Your task to perform on an android device: install app "DuckDuckGo Privacy Browser" Image 0: 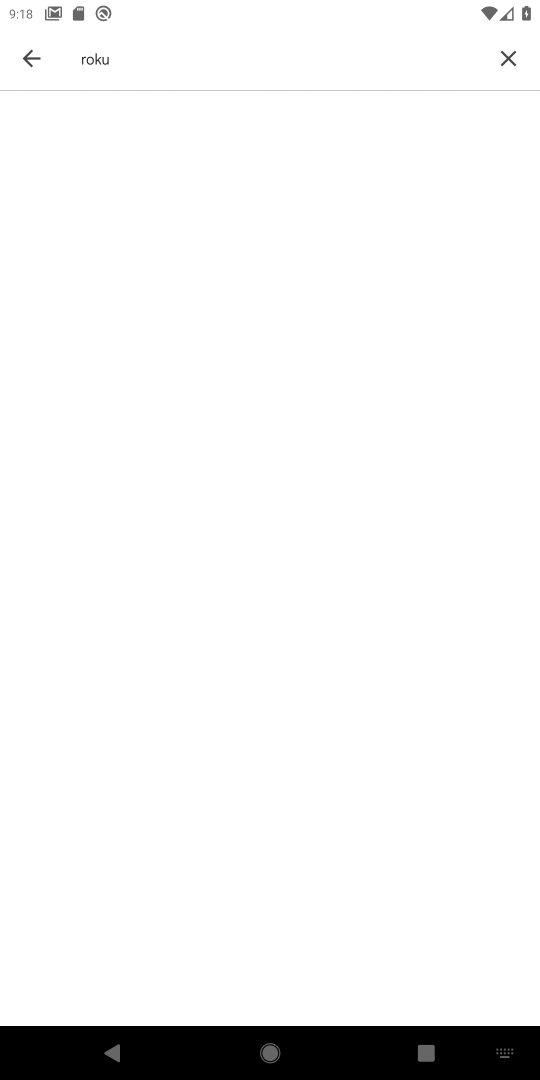
Step 0: press home button
Your task to perform on an android device: install app "DuckDuckGo Privacy Browser" Image 1: 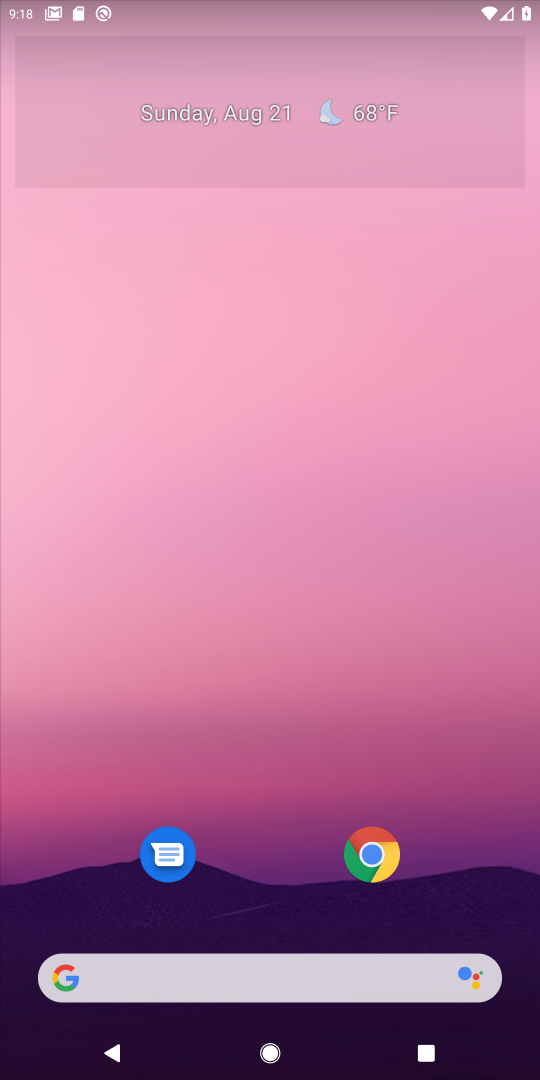
Step 1: drag from (232, 948) to (390, 3)
Your task to perform on an android device: install app "DuckDuckGo Privacy Browser" Image 2: 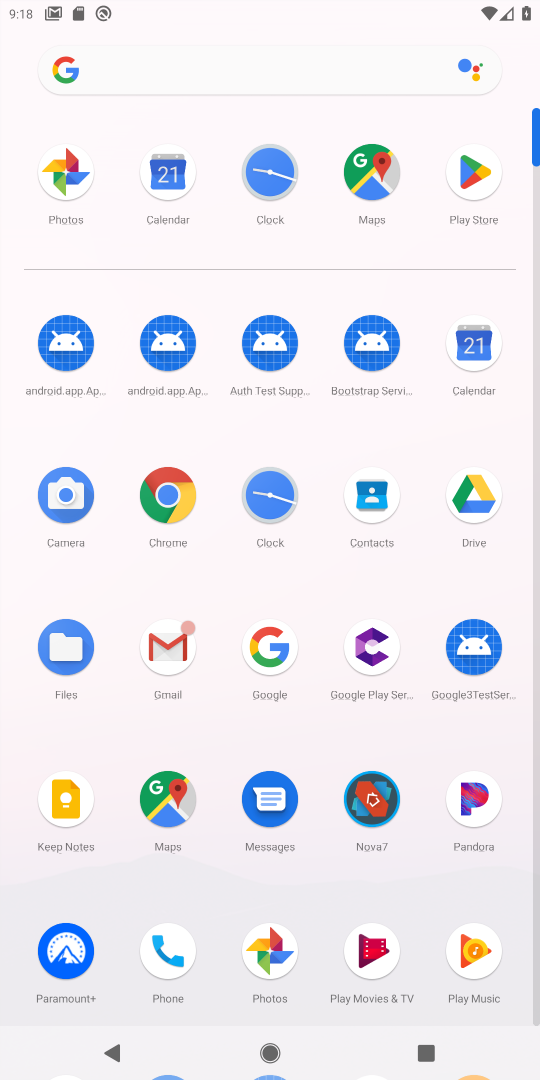
Step 2: click (506, 309)
Your task to perform on an android device: install app "DuckDuckGo Privacy Browser" Image 3: 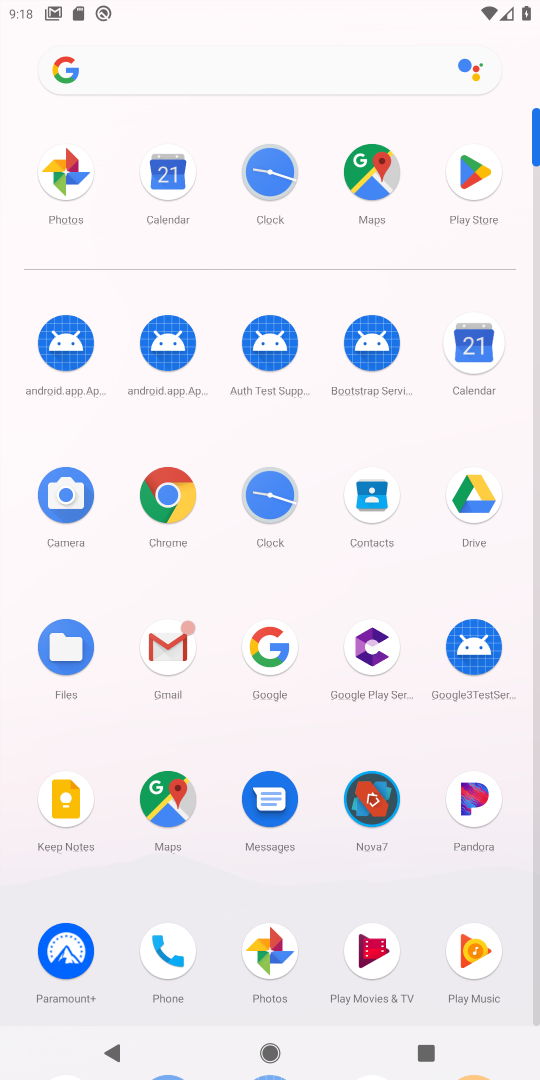
Step 3: click (473, 215)
Your task to perform on an android device: install app "DuckDuckGo Privacy Browser" Image 4: 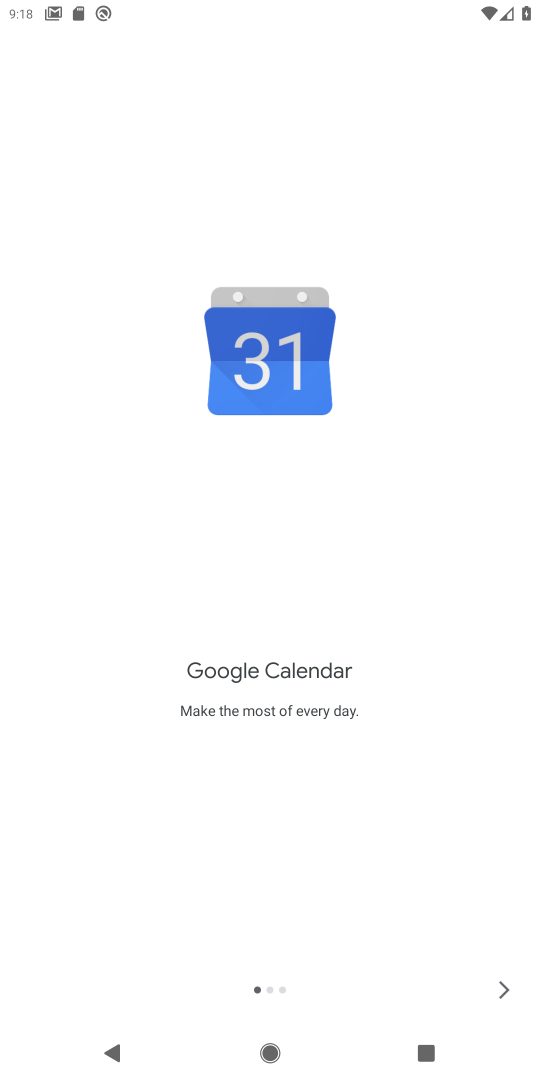
Step 4: press home button
Your task to perform on an android device: install app "DuckDuckGo Privacy Browser" Image 5: 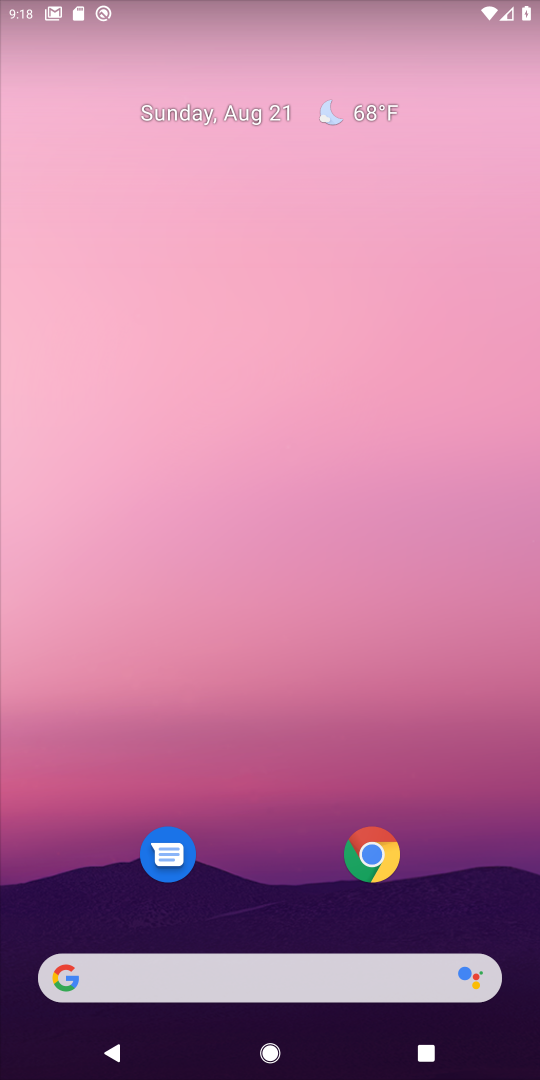
Step 5: drag from (333, 924) to (245, 201)
Your task to perform on an android device: install app "DuckDuckGo Privacy Browser" Image 6: 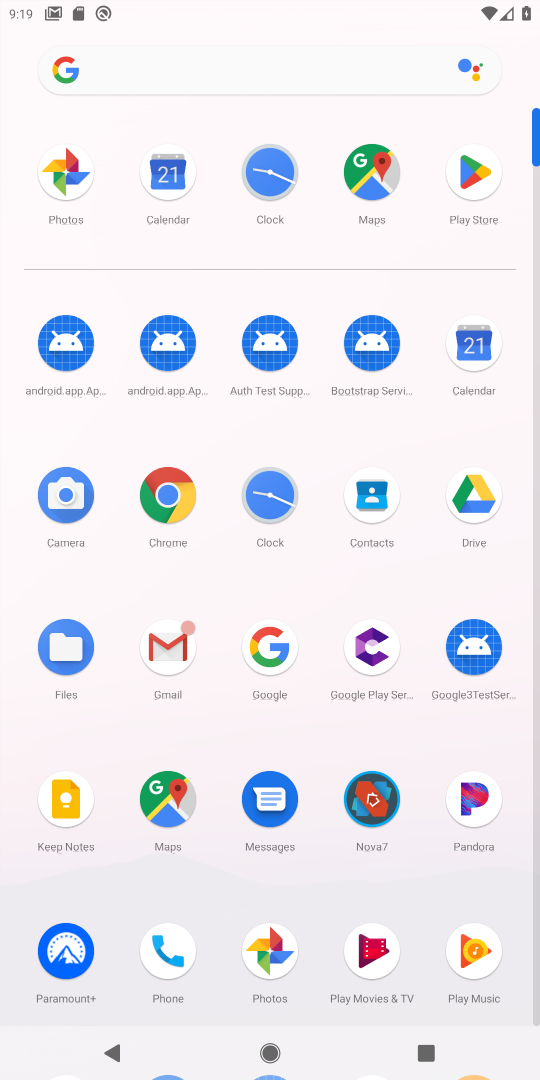
Step 6: click (490, 170)
Your task to perform on an android device: install app "DuckDuckGo Privacy Browser" Image 7: 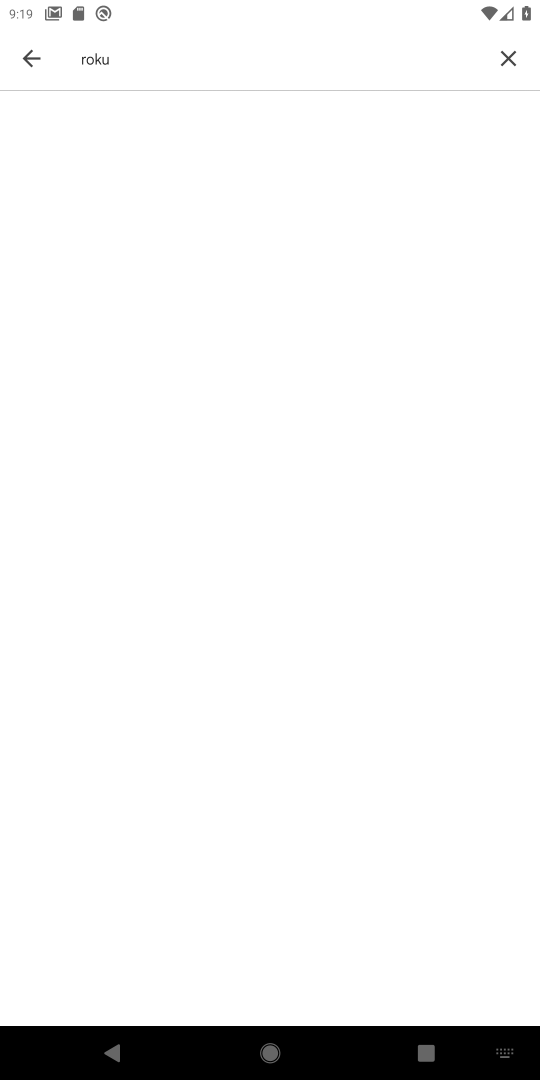
Step 7: click (498, 70)
Your task to perform on an android device: install app "DuckDuckGo Privacy Browser" Image 8: 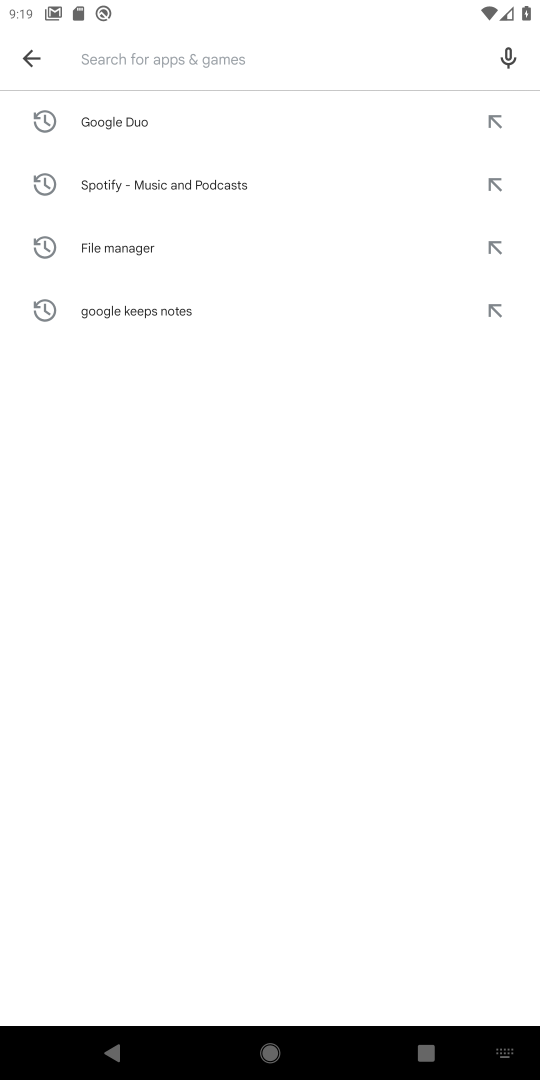
Step 8: type "duck duck go"
Your task to perform on an android device: install app "DuckDuckGo Privacy Browser" Image 9: 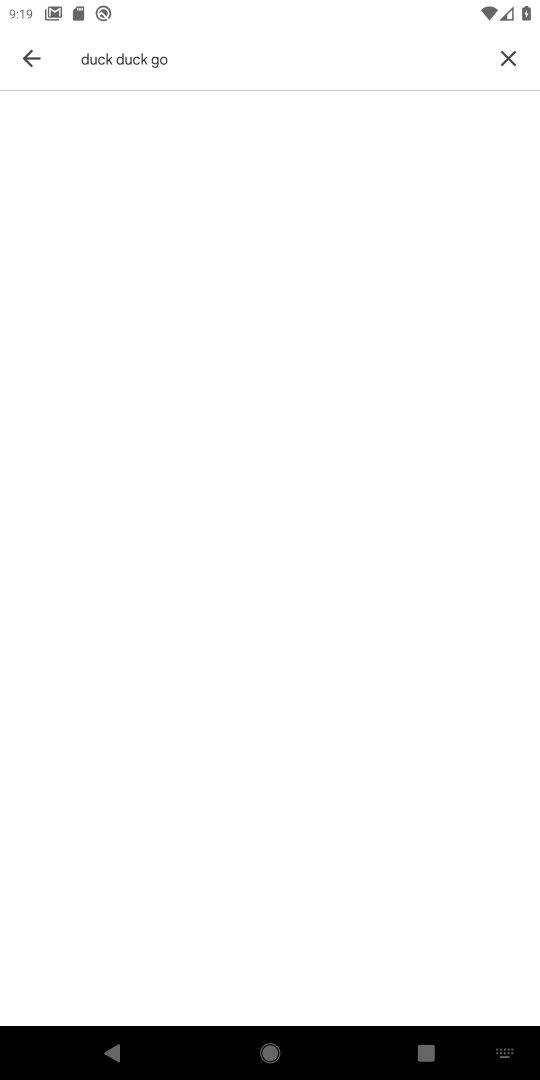
Step 9: task complete